Your task to perform on an android device: Go to ESPN.com Image 0: 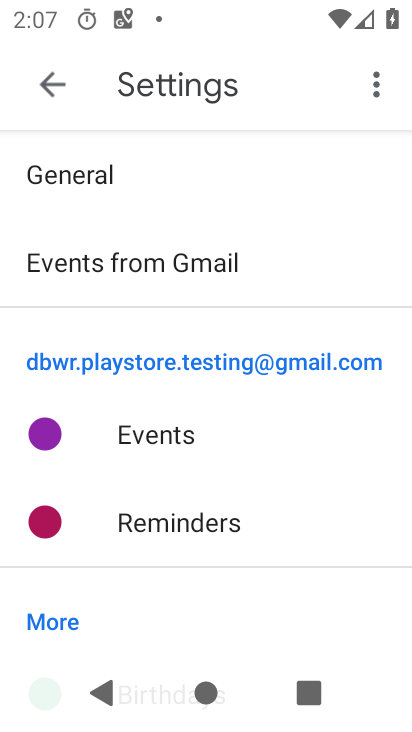
Step 0: press home button
Your task to perform on an android device: Go to ESPN.com Image 1: 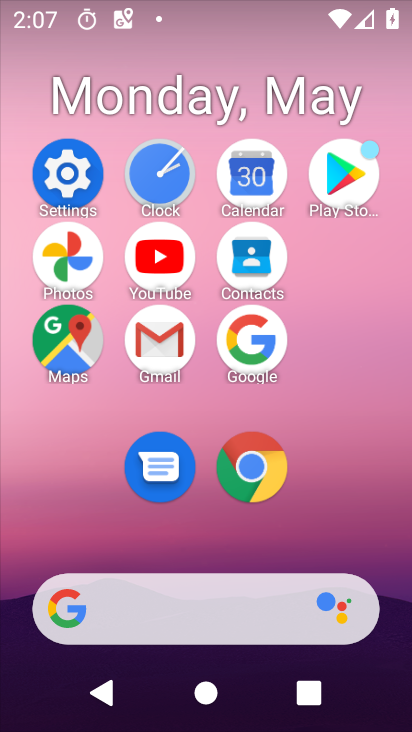
Step 1: click (262, 457)
Your task to perform on an android device: Go to ESPN.com Image 2: 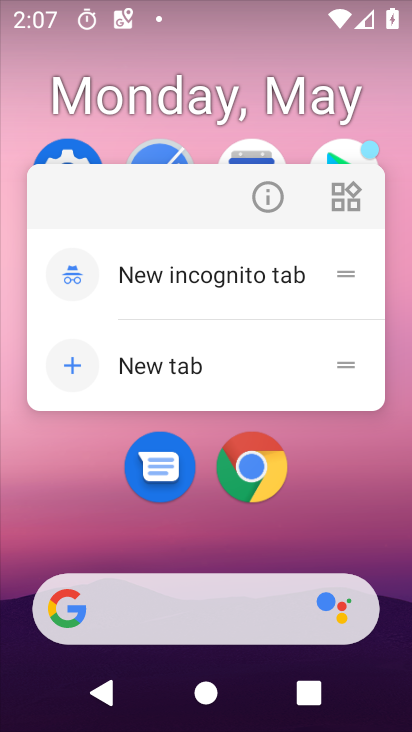
Step 2: click (262, 457)
Your task to perform on an android device: Go to ESPN.com Image 3: 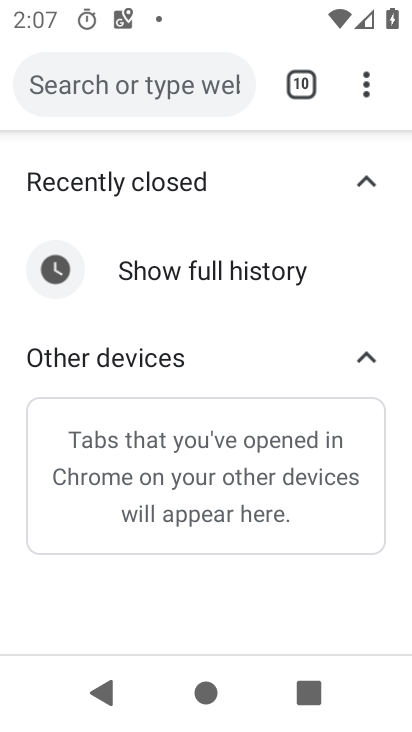
Step 3: click (300, 88)
Your task to perform on an android device: Go to ESPN.com Image 4: 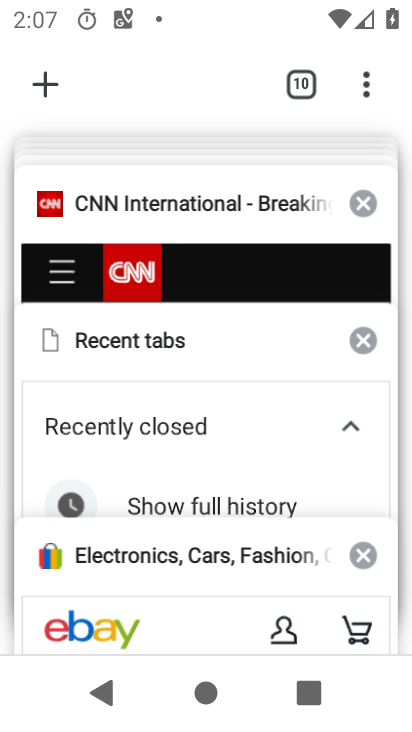
Step 4: click (78, 94)
Your task to perform on an android device: Go to ESPN.com Image 5: 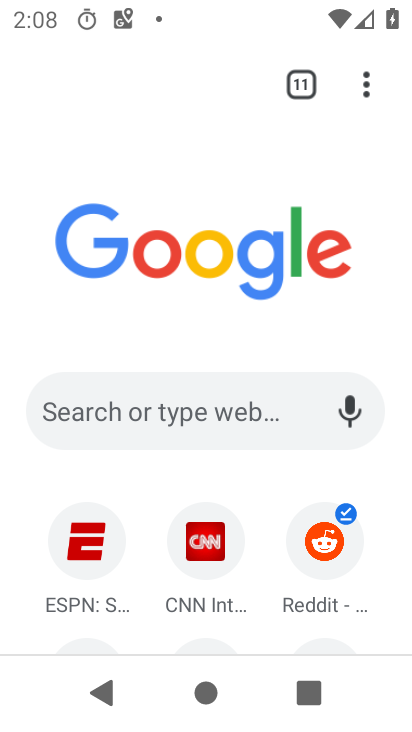
Step 5: click (95, 553)
Your task to perform on an android device: Go to ESPN.com Image 6: 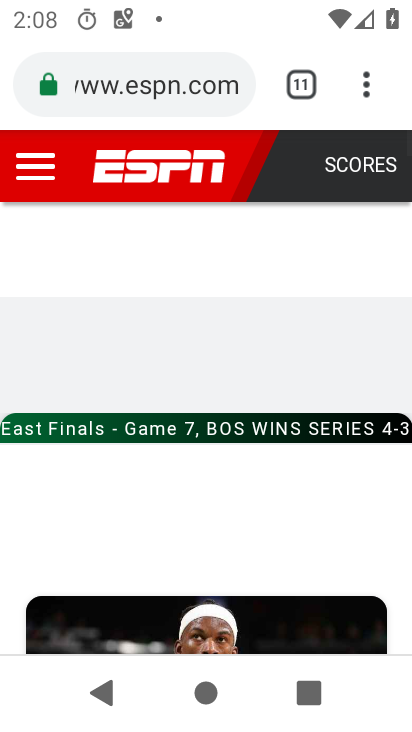
Step 6: task complete